Your task to perform on an android device: Open settings on Google Maps Image 0: 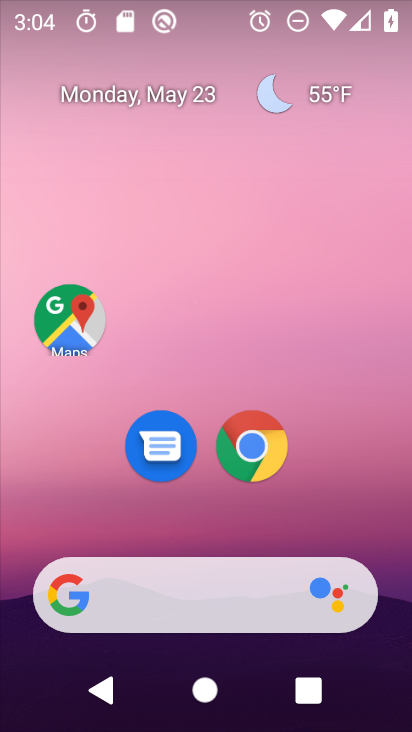
Step 0: click (77, 306)
Your task to perform on an android device: Open settings on Google Maps Image 1: 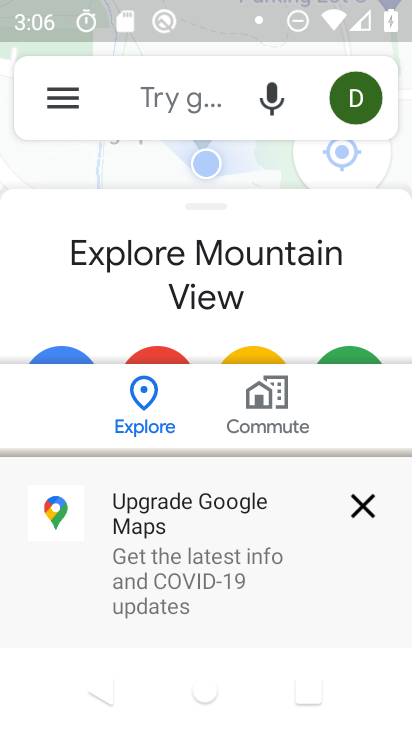
Step 1: click (46, 98)
Your task to perform on an android device: Open settings on Google Maps Image 2: 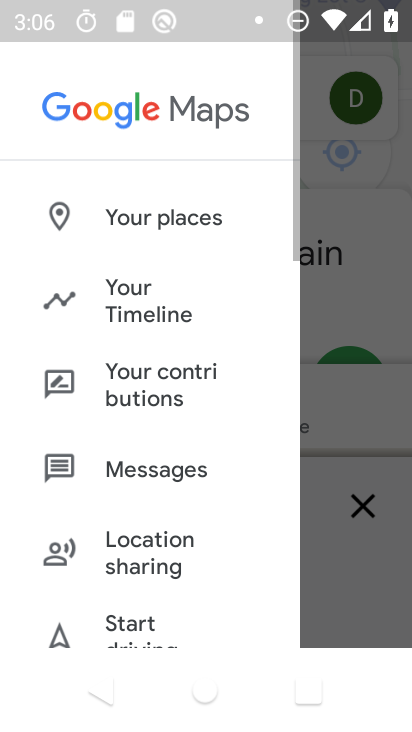
Step 2: drag from (155, 564) to (156, 236)
Your task to perform on an android device: Open settings on Google Maps Image 3: 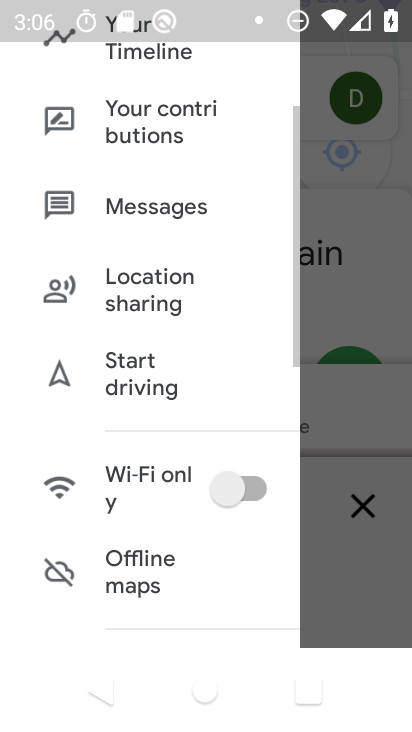
Step 3: drag from (155, 530) to (128, 189)
Your task to perform on an android device: Open settings on Google Maps Image 4: 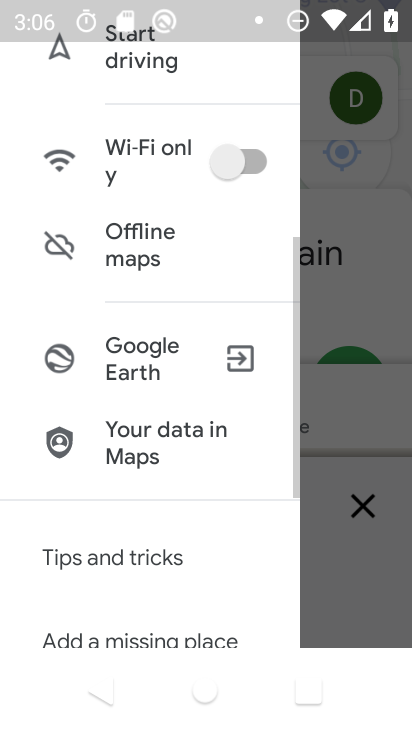
Step 4: drag from (150, 521) to (119, 191)
Your task to perform on an android device: Open settings on Google Maps Image 5: 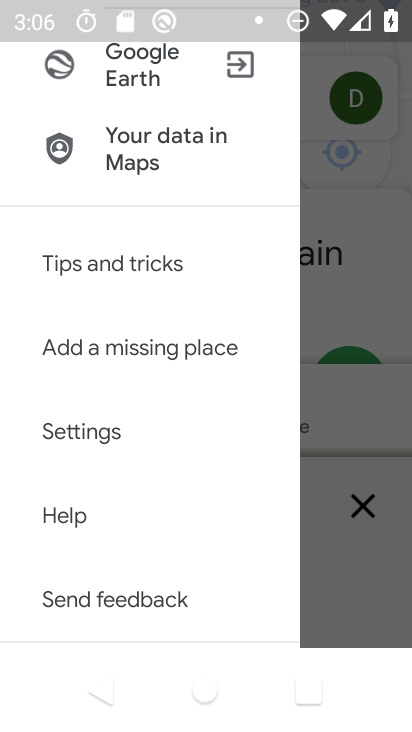
Step 5: click (87, 441)
Your task to perform on an android device: Open settings on Google Maps Image 6: 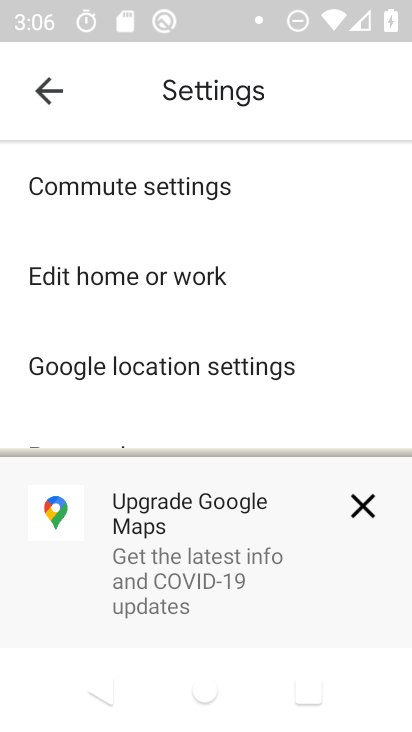
Step 6: task complete